Your task to perform on an android device: Show me productivity apps on the Play Store Image 0: 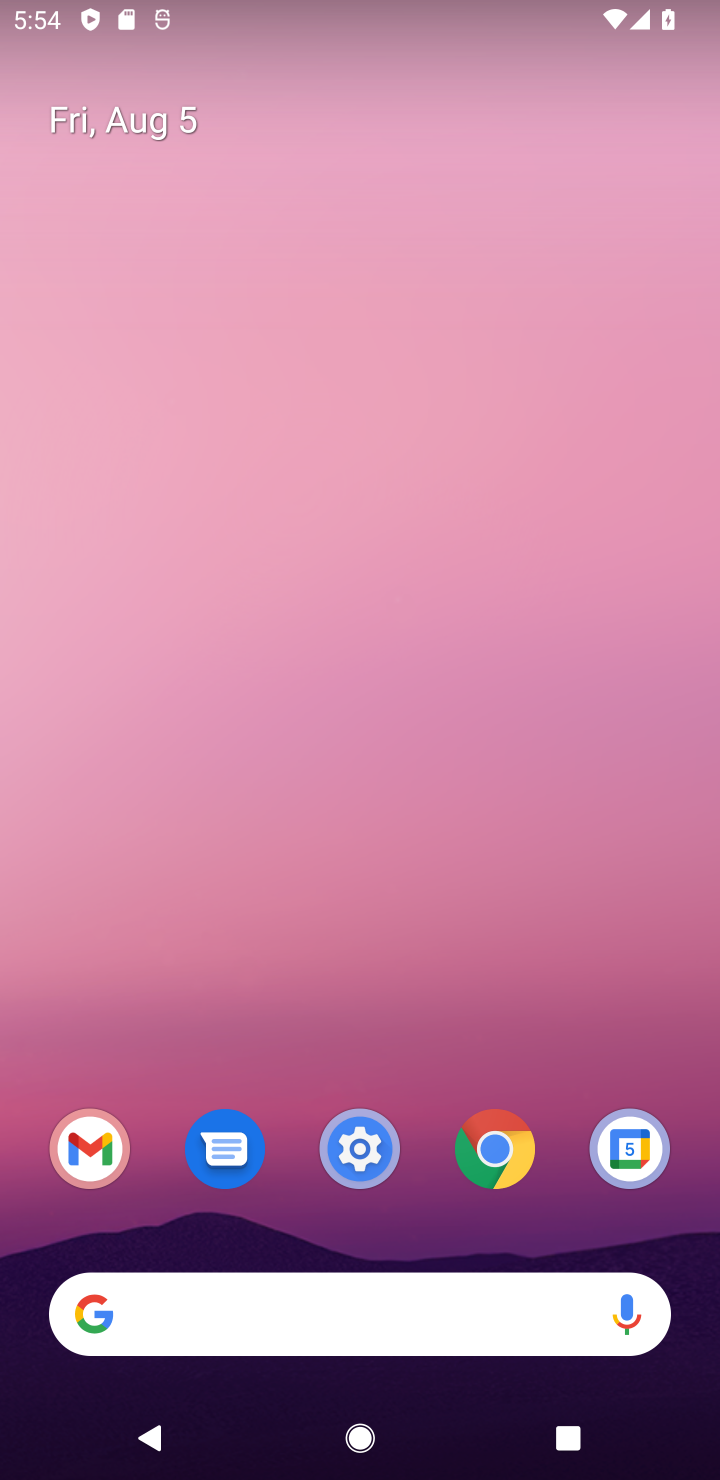
Step 0: task complete